Your task to perform on an android device: install app "NewsBreak: Local News & Alerts" Image 0: 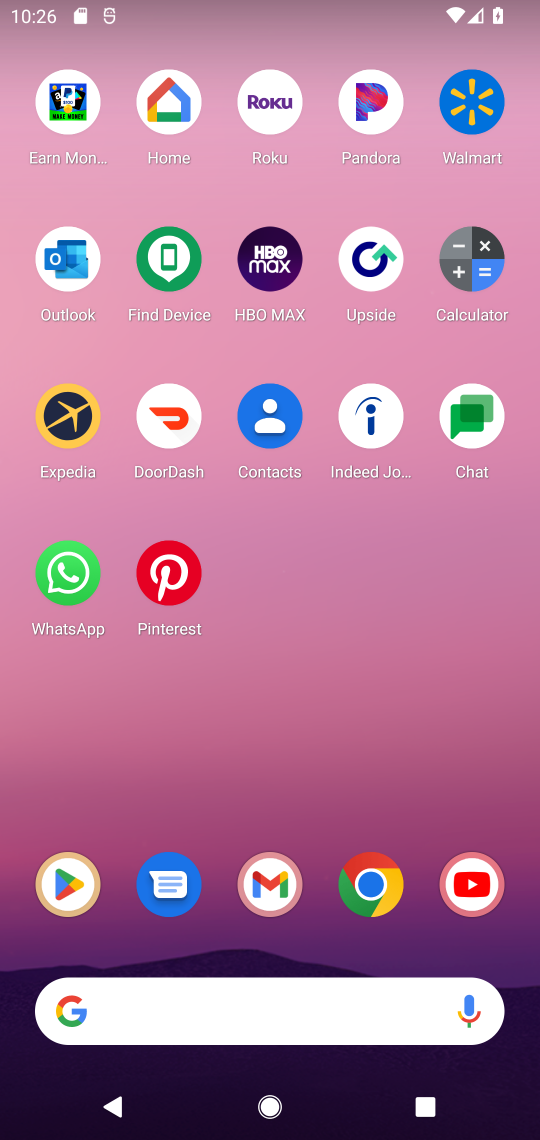
Step 0: click (63, 879)
Your task to perform on an android device: install app "NewsBreak: Local News & Alerts" Image 1: 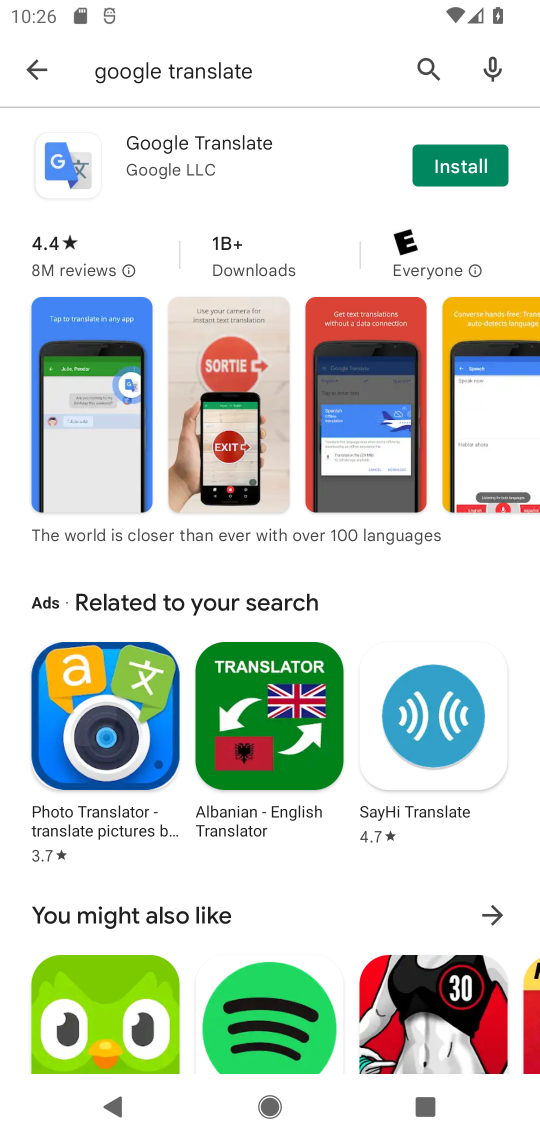
Step 1: click (232, 85)
Your task to perform on an android device: install app "NewsBreak: Local News & Alerts" Image 2: 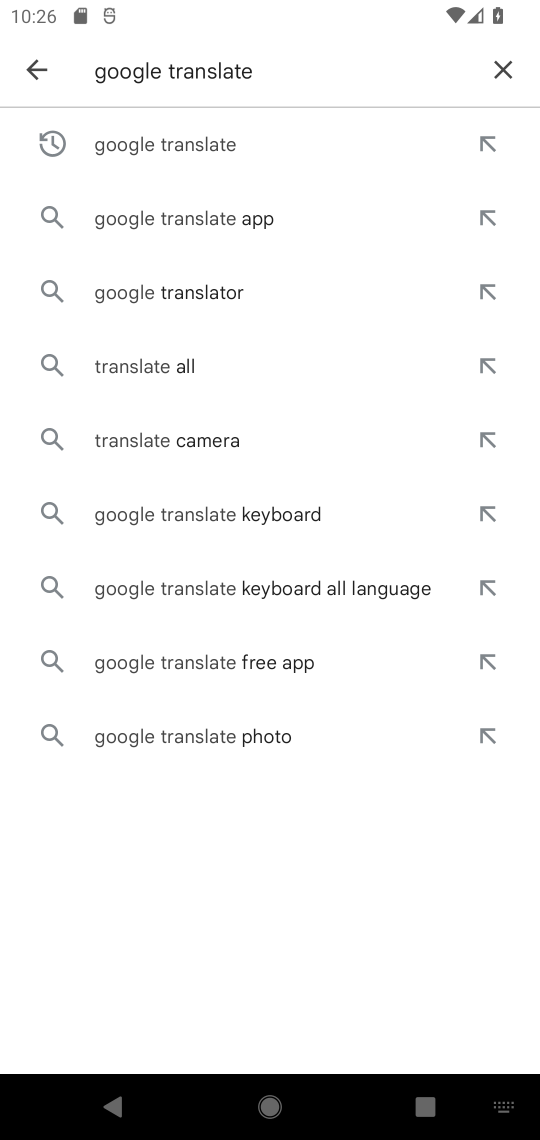
Step 2: click (503, 63)
Your task to perform on an android device: install app "NewsBreak: Local News & Alerts" Image 3: 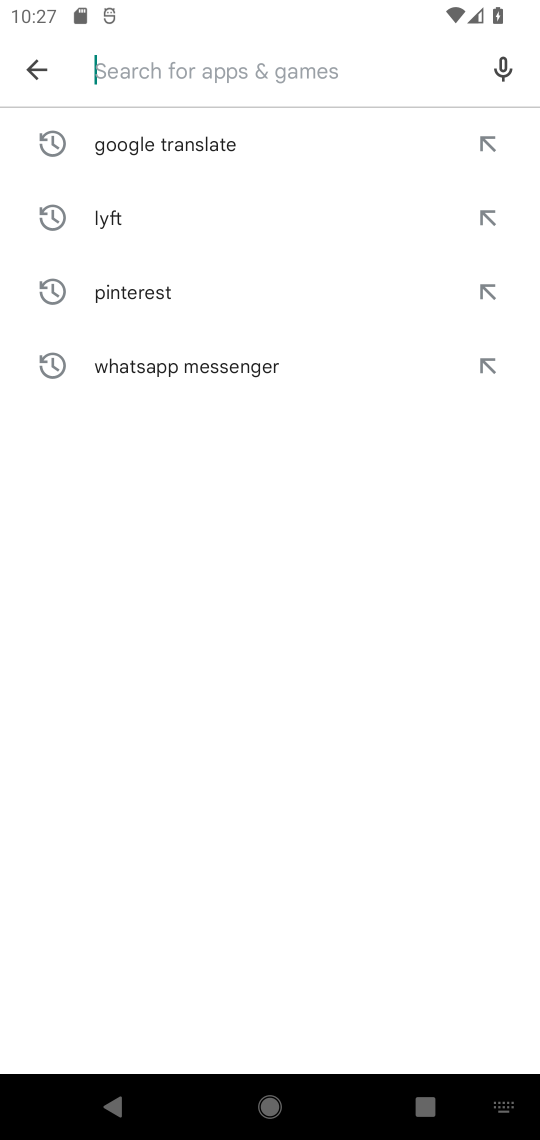
Step 3: type "news break"
Your task to perform on an android device: install app "NewsBreak: Local News & Alerts" Image 4: 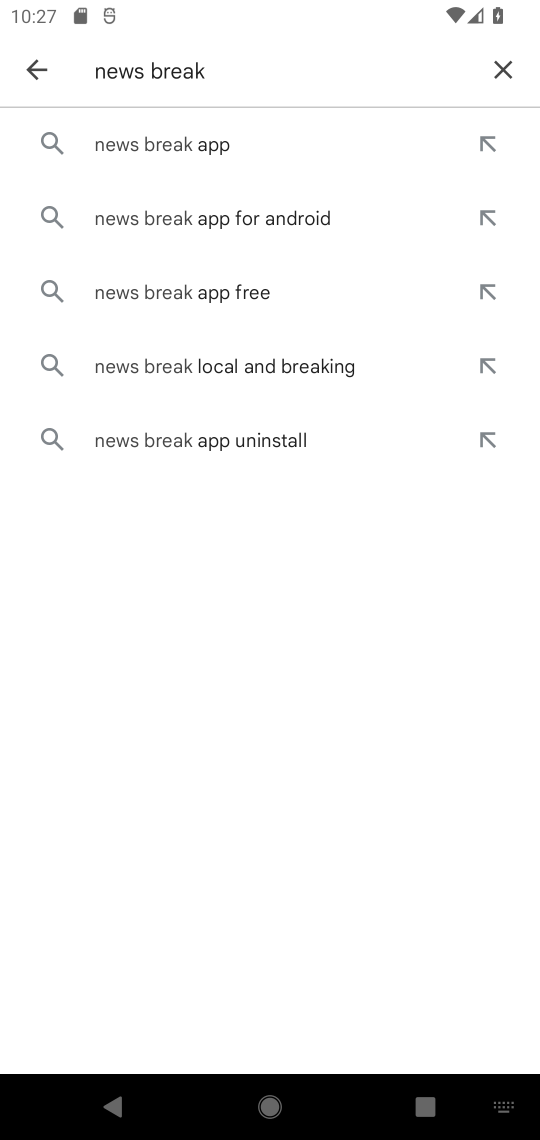
Step 4: click (150, 138)
Your task to perform on an android device: install app "NewsBreak: Local News & Alerts" Image 5: 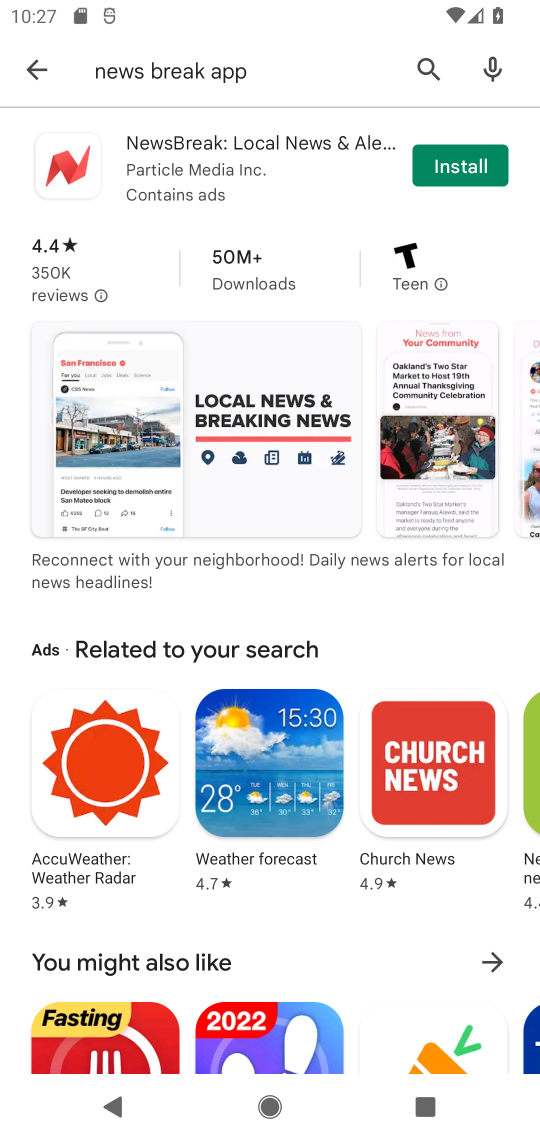
Step 5: click (452, 156)
Your task to perform on an android device: install app "NewsBreak: Local News & Alerts" Image 6: 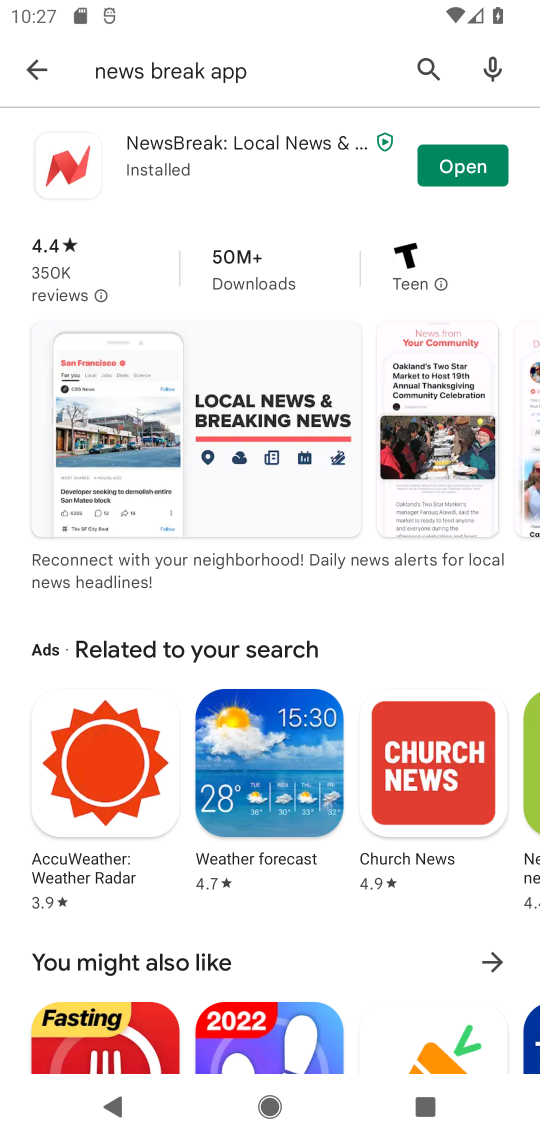
Step 6: task complete